Your task to perform on an android device: turn on data saver in the chrome app Image 0: 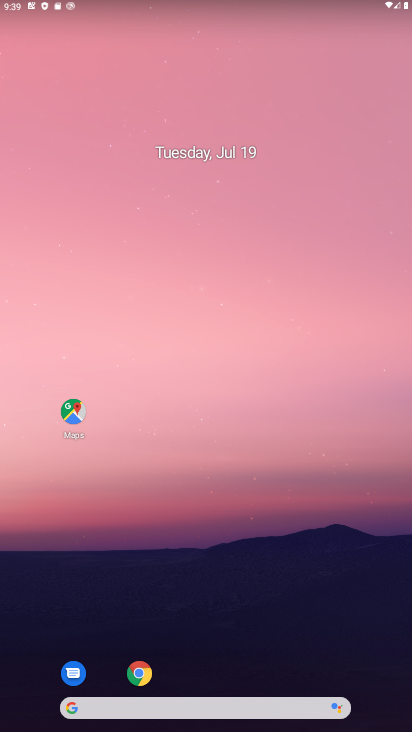
Step 0: click (148, 666)
Your task to perform on an android device: turn on data saver in the chrome app Image 1: 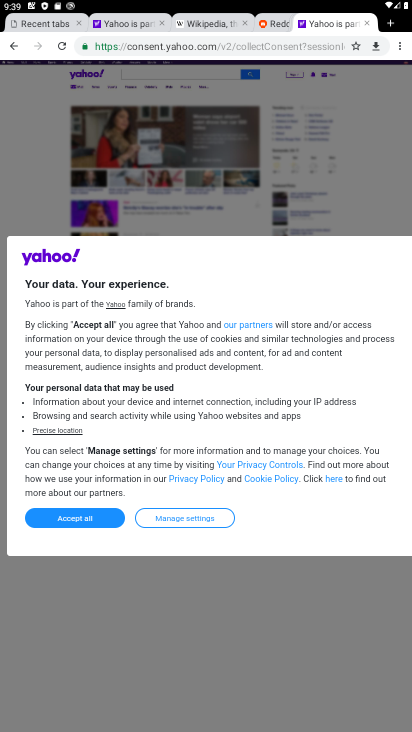
Step 1: click (393, 44)
Your task to perform on an android device: turn on data saver in the chrome app Image 2: 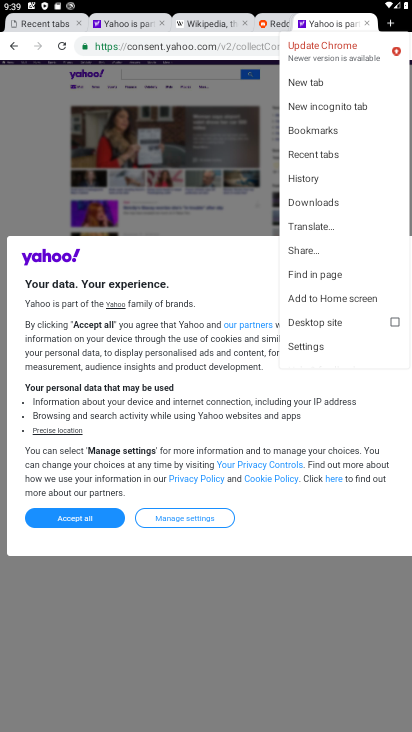
Step 2: click (320, 340)
Your task to perform on an android device: turn on data saver in the chrome app Image 3: 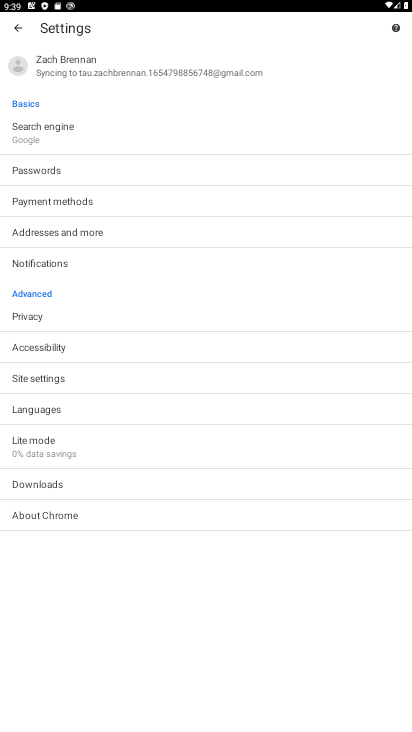
Step 3: click (79, 439)
Your task to perform on an android device: turn on data saver in the chrome app Image 4: 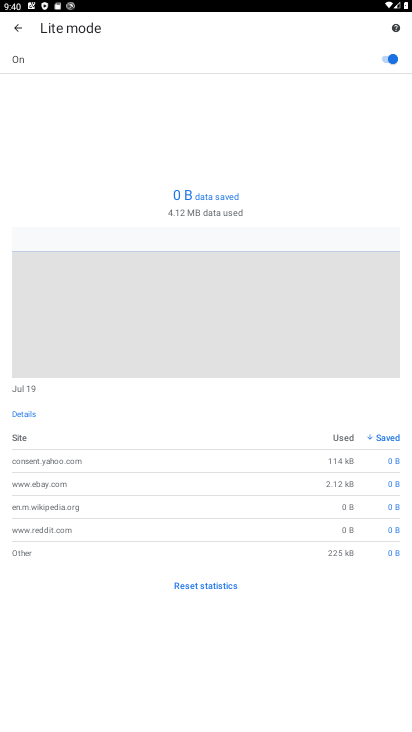
Step 4: task complete